Your task to perform on an android device: Go to sound settings Image 0: 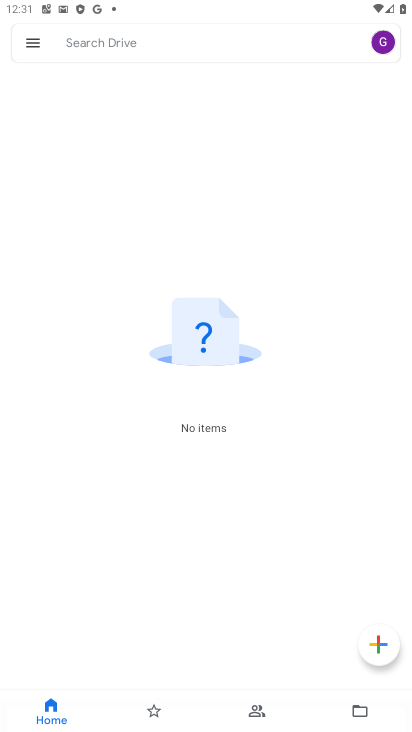
Step 0: press home button
Your task to perform on an android device: Go to sound settings Image 1: 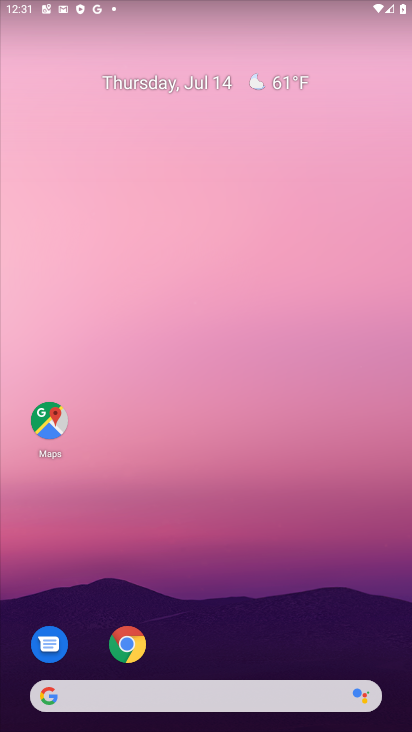
Step 1: drag from (282, 566) to (311, 35)
Your task to perform on an android device: Go to sound settings Image 2: 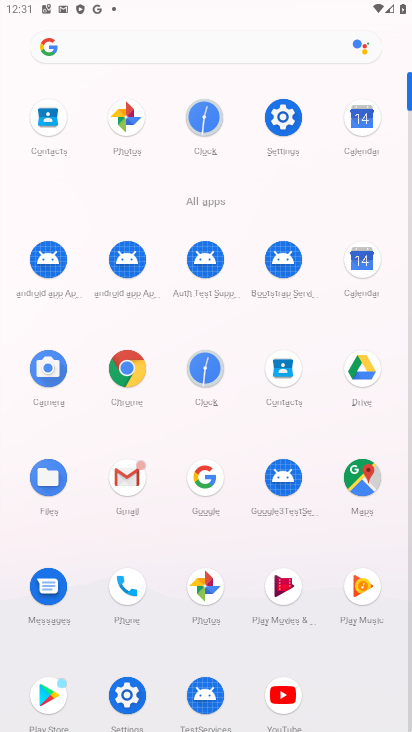
Step 2: click (289, 127)
Your task to perform on an android device: Go to sound settings Image 3: 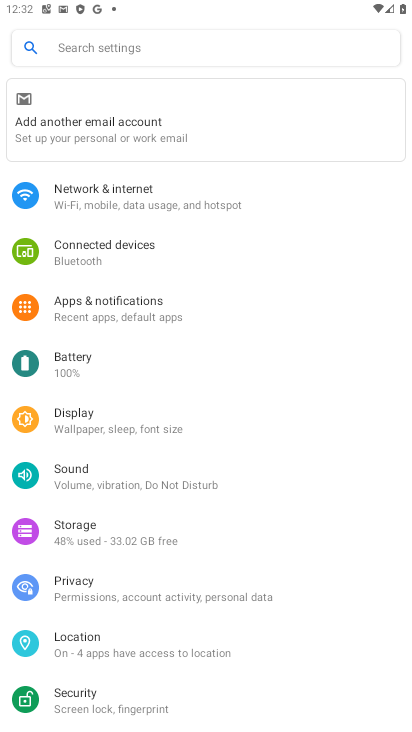
Step 3: click (81, 472)
Your task to perform on an android device: Go to sound settings Image 4: 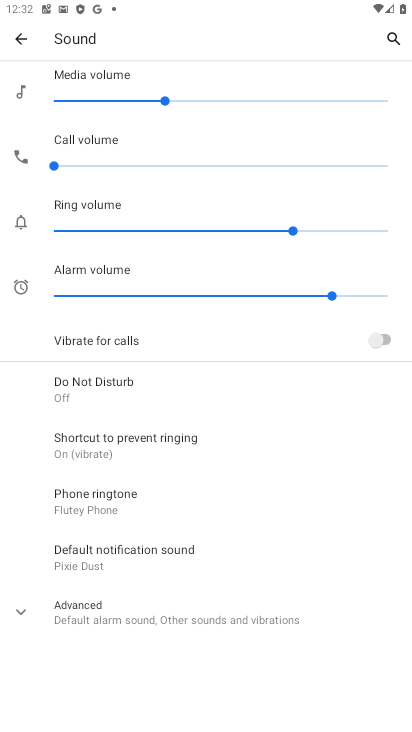
Step 4: task complete